Your task to perform on an android device: see tabs open on other devices in the chrome app Image 0: 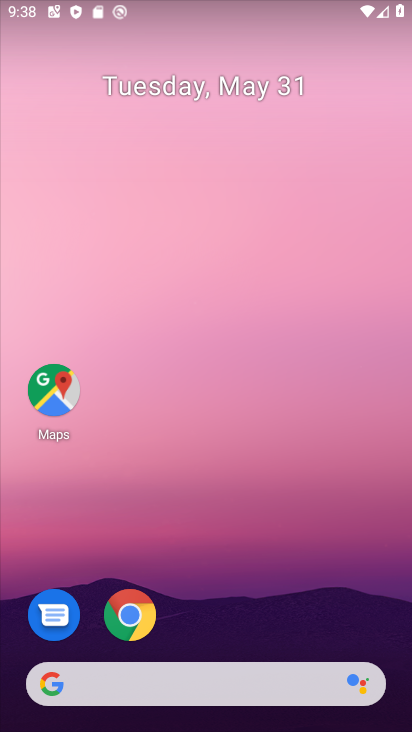
Step 0: click (134, 618)
Your task to perform on an android device: see tabs open on other devices in the chrome app Image 1: 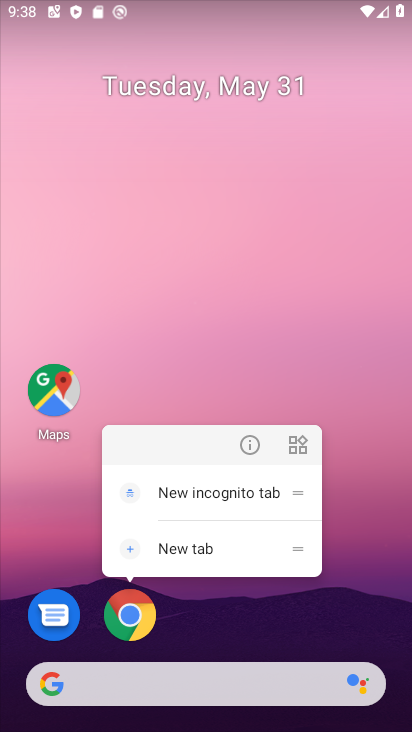
Step 1: click (127, 605)
Your task to perform on an android device: see tabs open on other devices in the chrome app Image 2: 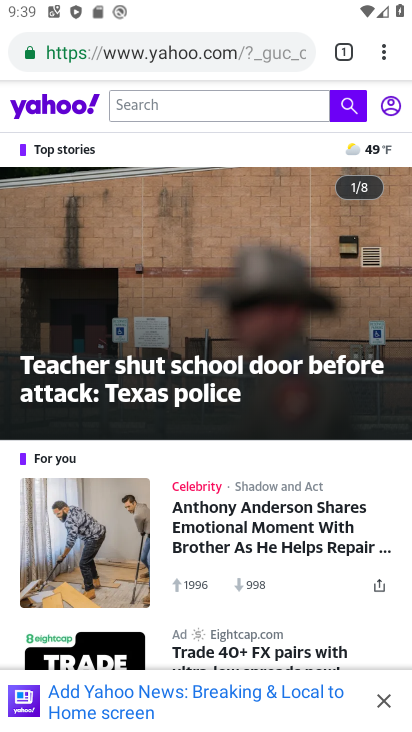
Step 2: click (385, 48)
Your task to perform on an android device: see tabs open on other devices in the chrome app Image 3: 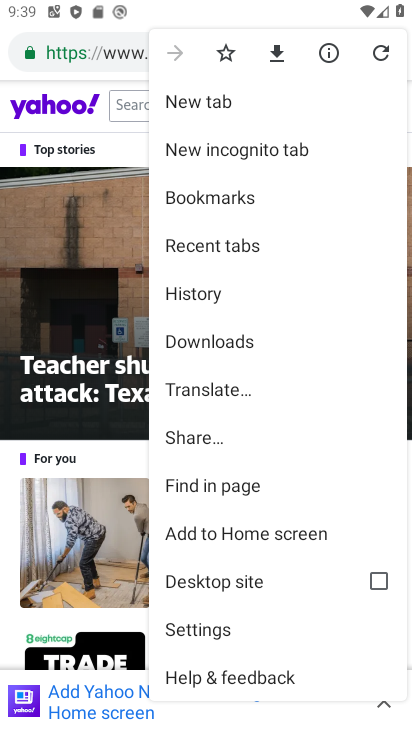
Step 3: click (208, 243)
Your task to perform on an android device: see tabs open on other devices in the chrome app Image 4: 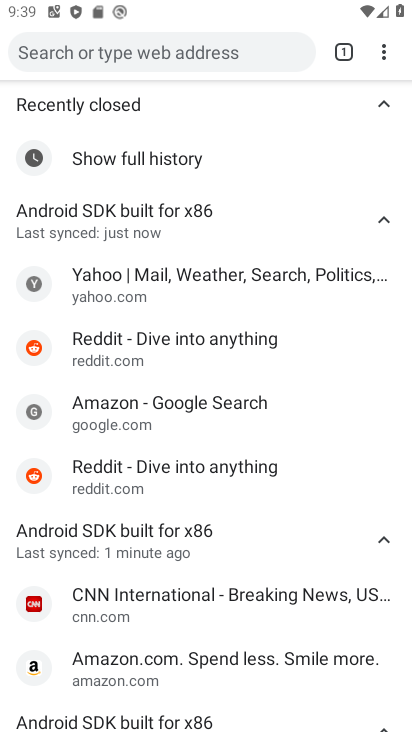
Step 4: task complete